Your task to perform on an android device: turn on showing notifications on the lock screen Image 0: 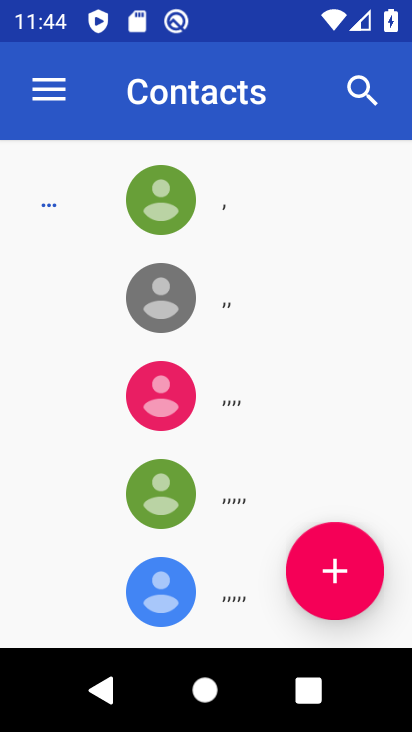
Step 0: press home button
Your task to perform on an android device: turn on showing notifications on the lock screen Image 1: 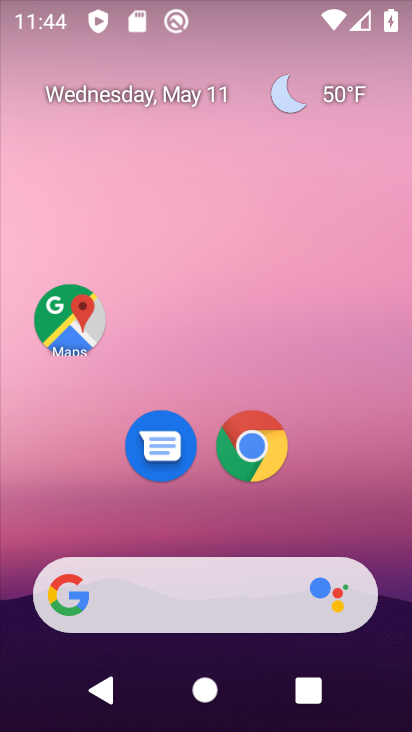
Step 1: drag from (302, 488) to (301, 10)
Your task to perform on an android device: turn on showing notifications on the lock screen Image 2: 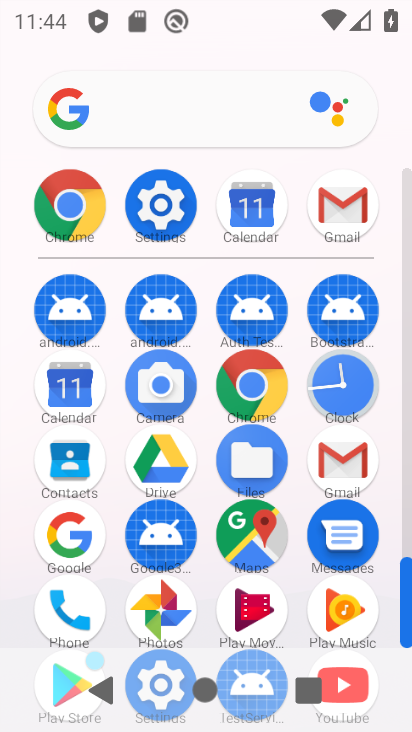
Step 2: click (159, 203)
Your task to perform on an android device: turn on showing notifications on the lock screen Image 3: 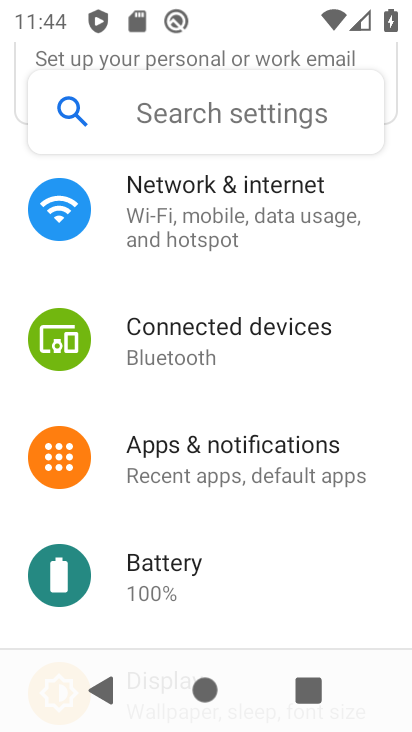
Step 3: click (293, 456)
Your task to perform on an android device: turn on showing notifications on the lock screen Image 4: 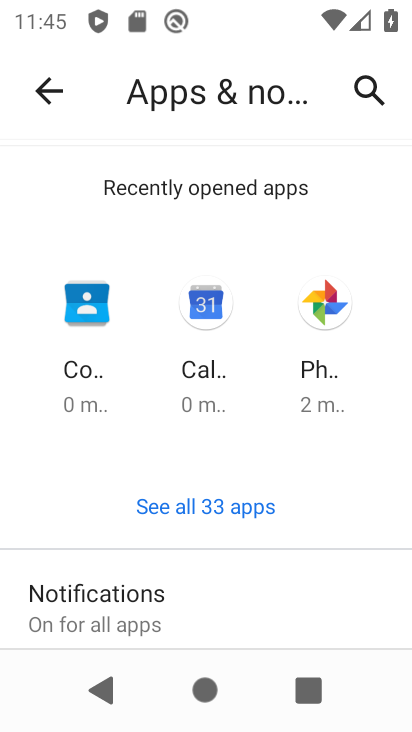
Step 4: click (204, 610)
Your task to perform on an android device: turn on showing notifications on the lock screen Image 5: 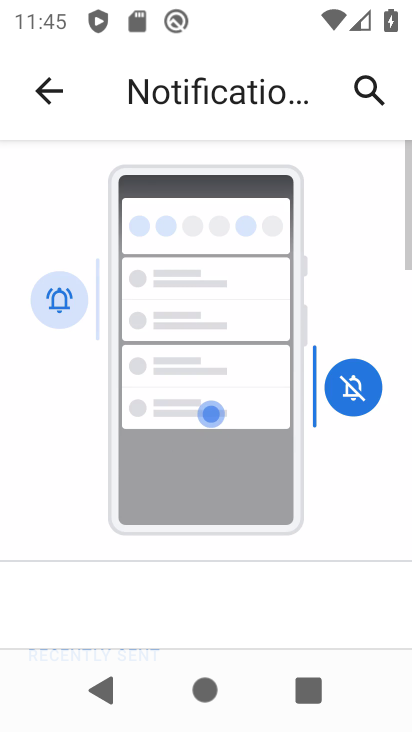
Step 5: drag from (230, 554) to (235, 163)
Your task to perform on an android device: turn on showing notifications on the lock screen Image 6: 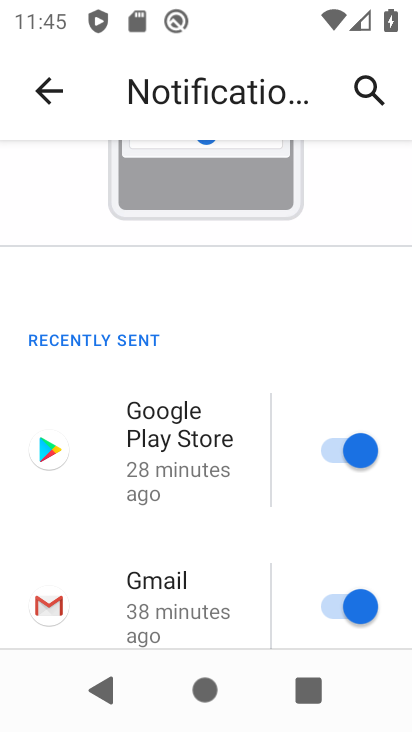
Step 6: drag from (231, 540) to (208, 187)
Your task to perform on an android device: turn on showing notifications on the lock screen Image 7: 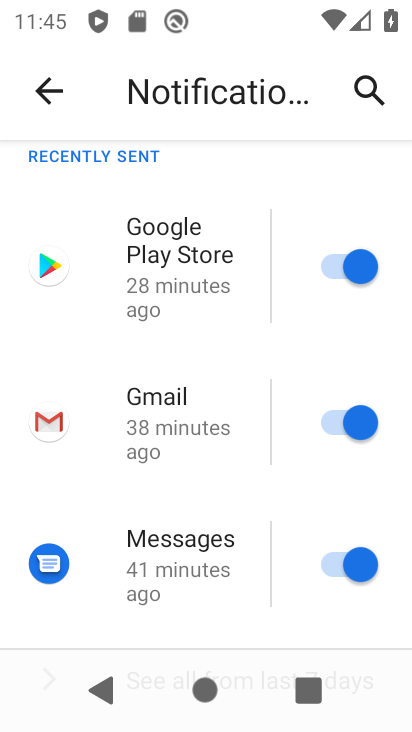
Step 7: drag from (300, 579) to (293, 92)
Your task to perform on an android device: turn on showing notifications on the lock screen Image 8: 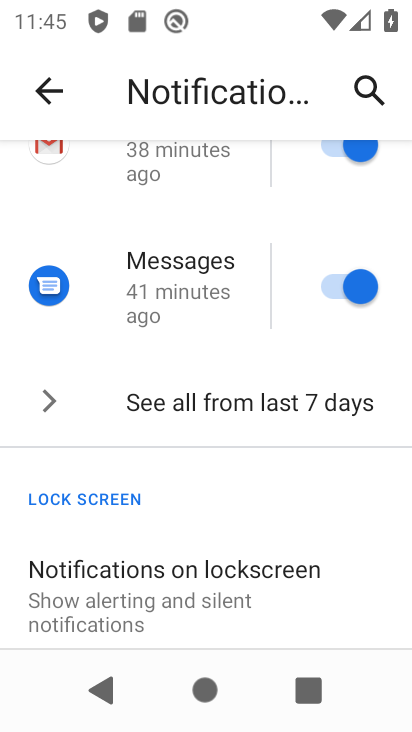
Step 8: click (239, 583)
Your task to perform on an android device: turn on showing notifications on the lock screen Image 9: 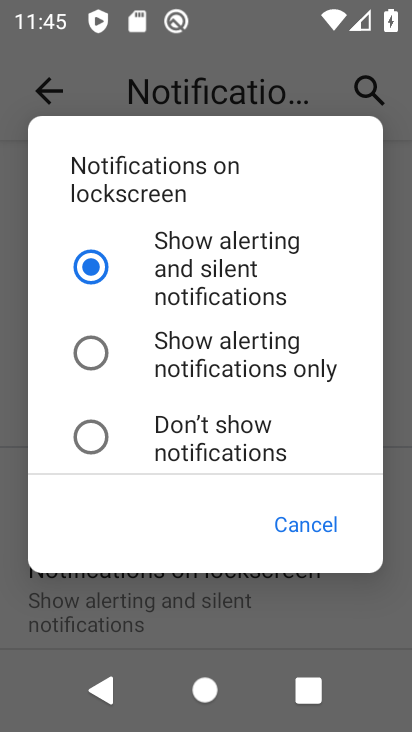
Step 9: click (233, 252)
Your task to perform on an android device: turn on showing notifications on the lock screen Image 10: 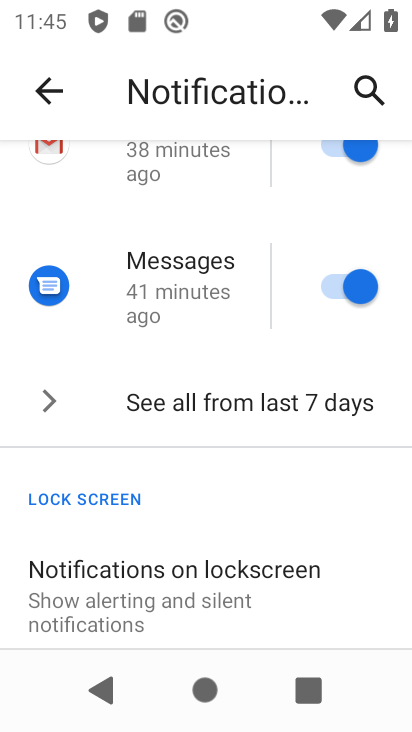
Step 10: task complete